Your task to perform on an android device: Open display settings Image 0: 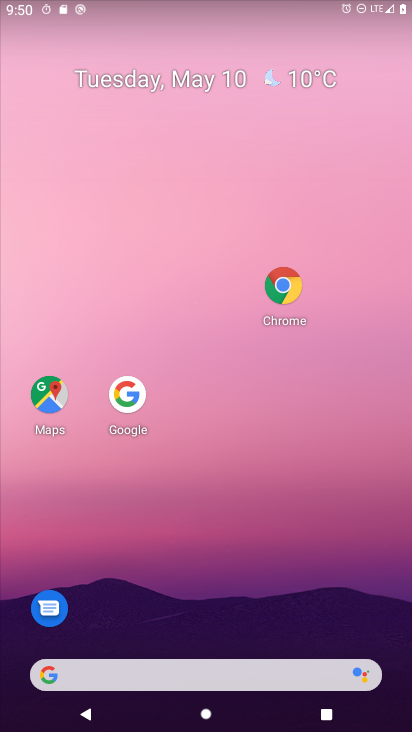
Step 0: drag from (160, 674) to (286, 95)
Your task to perform on an android device: Open display settings Image 1: 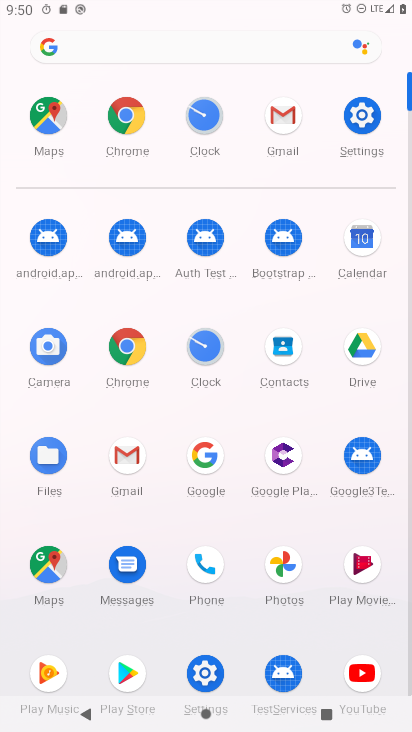
Step 1: click (355, 115)
Your task to perform on an android device: Open display settings Image 2: 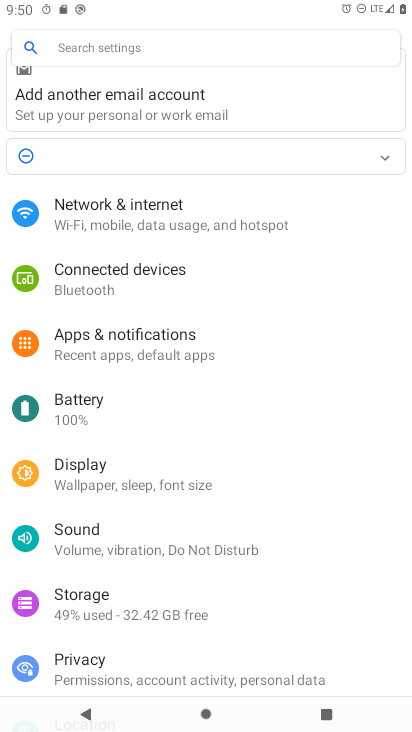
Step 2: click (108, 473)
Your task to perform on an android device: Open display settings Image 3: 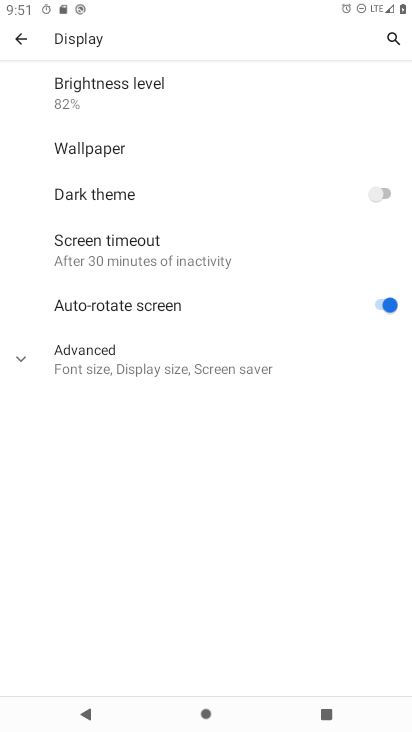
Step 3: task complete